Your task to perform on an android device: Open calendar and show me the fourth week of next month Image 0: 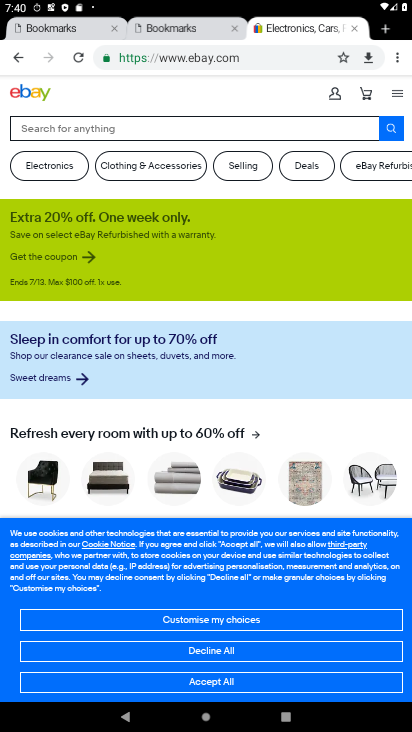
Step 0: press home button
Your task to perform on an android device: Open calendar and show me the fourth week of next month Image 1: 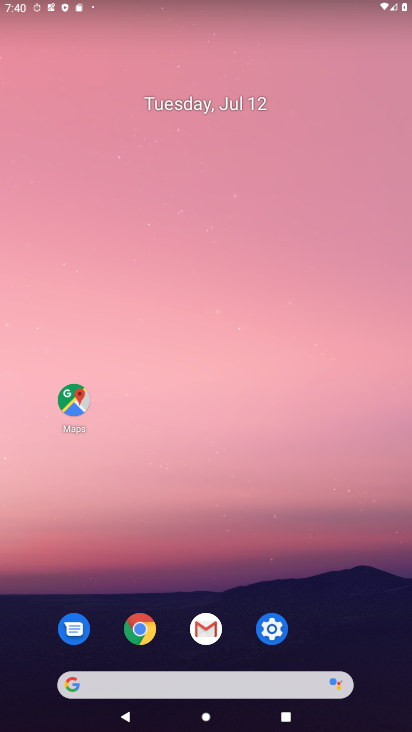
Step 1: drag from (279, 703) to (294, 187)
Your task to perform on an android device: Open calendar and show me the fourth week of next month Image 2: 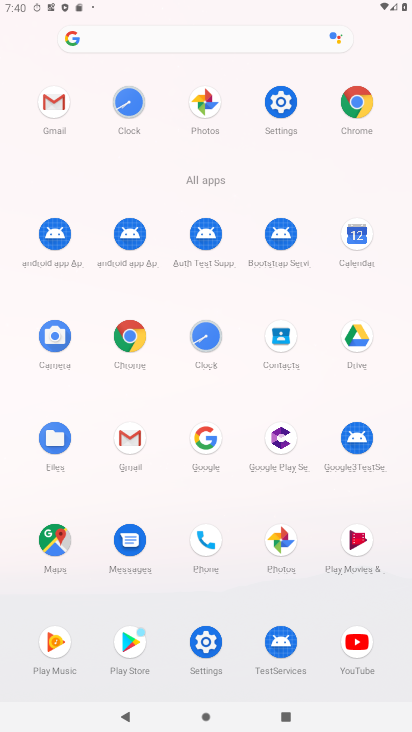
Step 2: click (356, 231)
Your task to perform on an android device: Open calendar and show me the fourth week of next month Image 3: 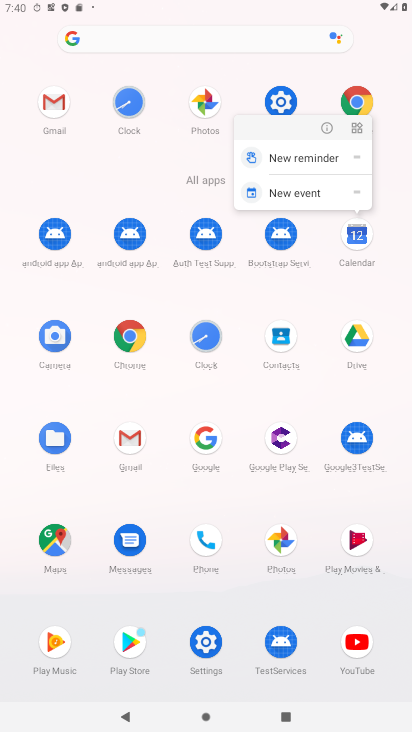
Step 3: click (359, 236)
Your task to perform on an android device: Open calendar and show me the fourth week of next month Image 4: 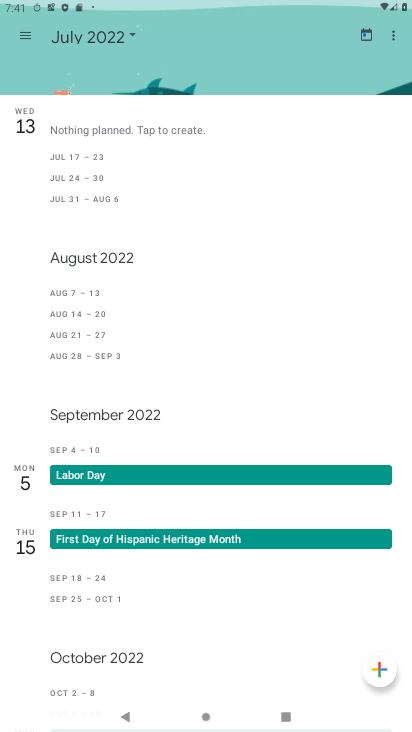
Step 4: click (26, 36)
Your task to perform on an android device: Open calendar and show me the fourth week of next month Image 5: 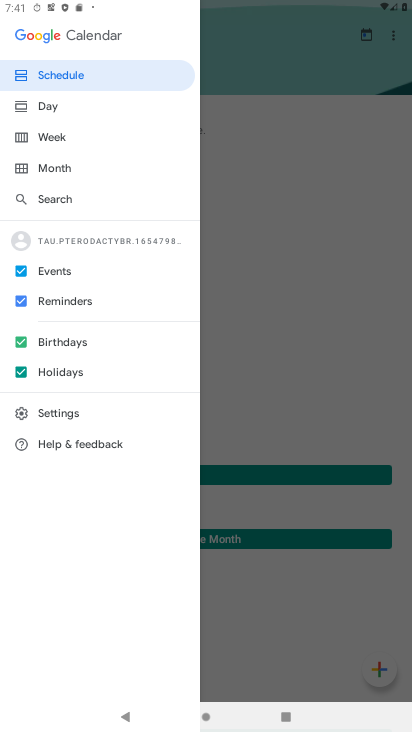
Step 5: click (26, 165)
Your task to perform on an android device: Open calendar and show me the fourth week of next month Image 6: 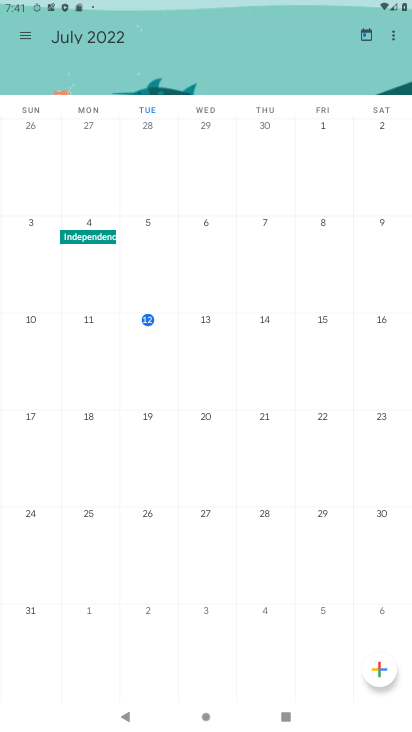
Step 6: drag from (402, 277) to (0, 381)
Your task to perform on an android device: Open calendar and show me the fourth week of next month Image 7: 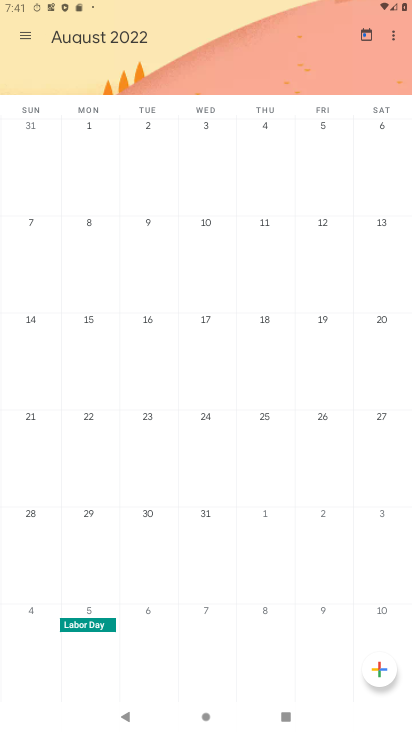
Step 7: click (83, 417)
Your task to perform on an android device: Open calendar and show me the fourth week of next month Image 8: 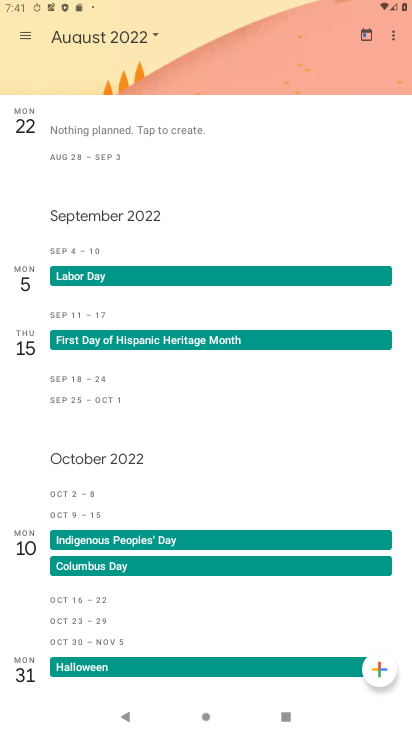
Step 8: task complete